Your task to perform on an android device: toggle pop-ups in chrome Image 0: 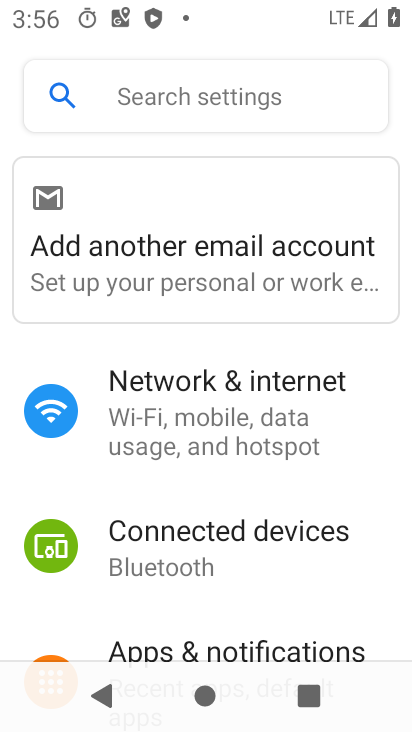
Step 0: press home button
Your task to perform on an android device: toggle pop-ups in chrome Image 1: 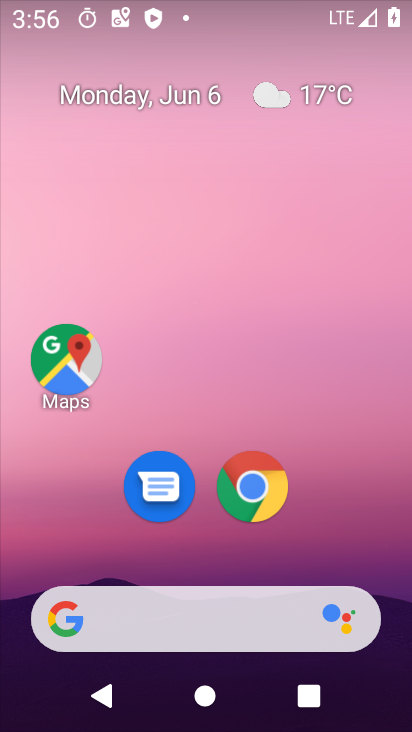
Step 1: click (250, 488)
Your task to perform on an android device: toggle pop-ups in chrome Image 2: 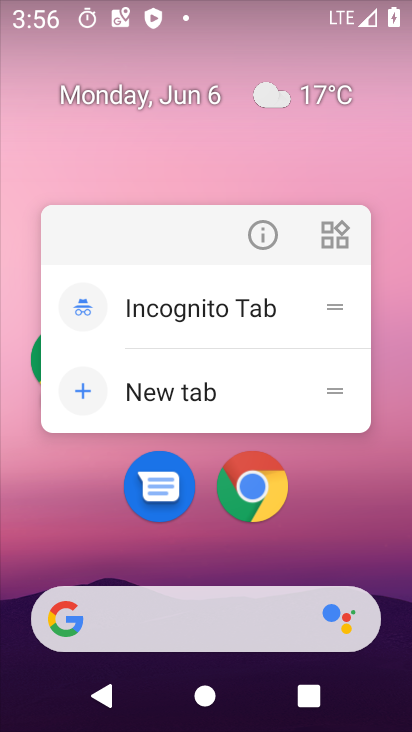
Step 2: click (250, 488)
Your task to perform on an android device: toggle pop-ups in chrome Image 3: 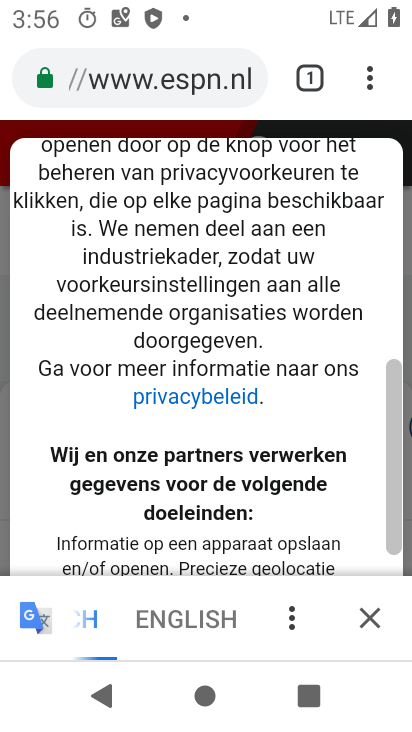
Step 3: drag from (374, 67) to (249, 552)
Your task to perform on an android device: toggle pop-ups in chrome Image 4: 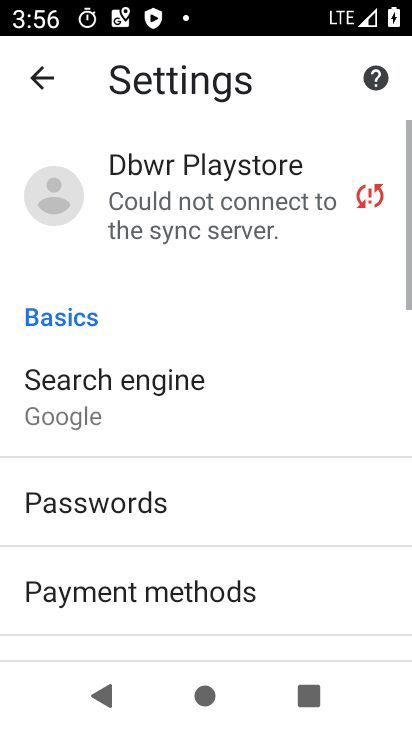
Step 4: drag from (247, 521) to (284, 183)
Your task to perform on an android device: toggle pop-ups in chrome Image 5: 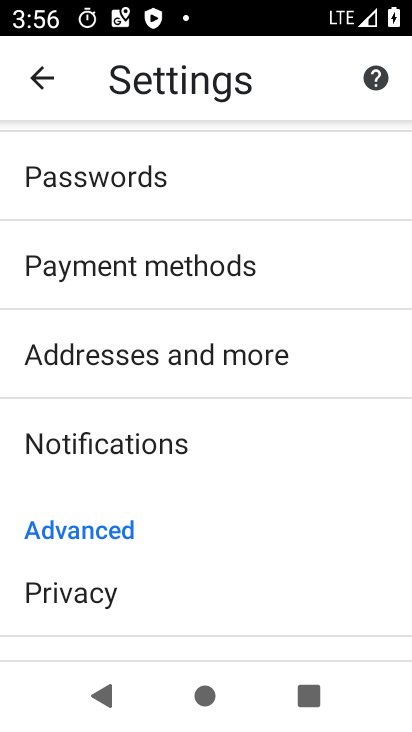
Step 5: drag from (279, 295) to (304, 152)
Your task to perform on an android device: toggle pop-ups in chrome Image 6: 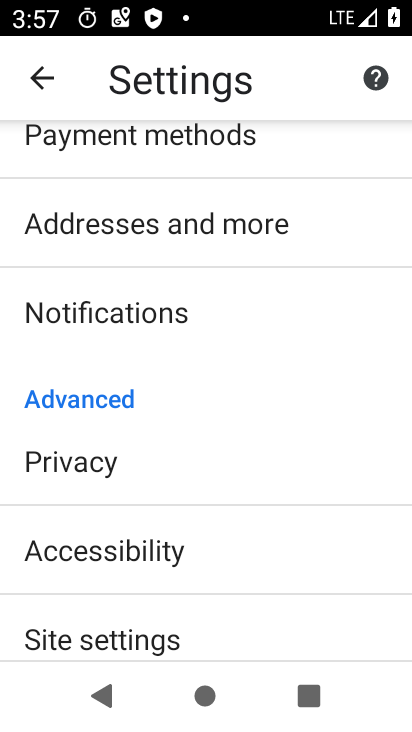
Step 6: drag from (169, 510) to (221, 211)
Your task to perform on an android device: toggle pop-ups in chrome Image 7: 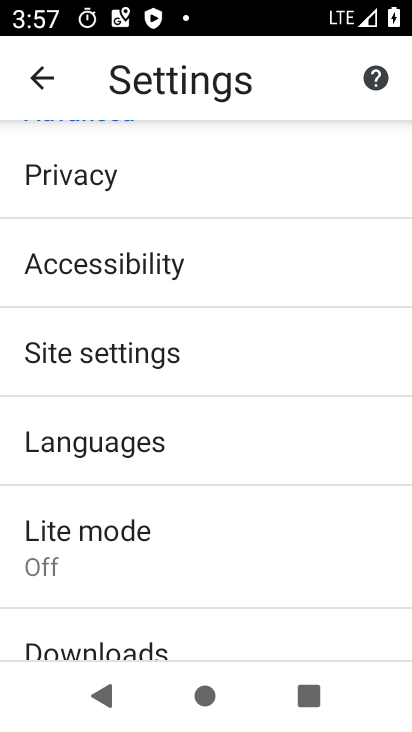
Step 7: drag from (186, 588) to (208, 389)
Your task to perform on an android device: toggle pop-ups in chrome Image 8: 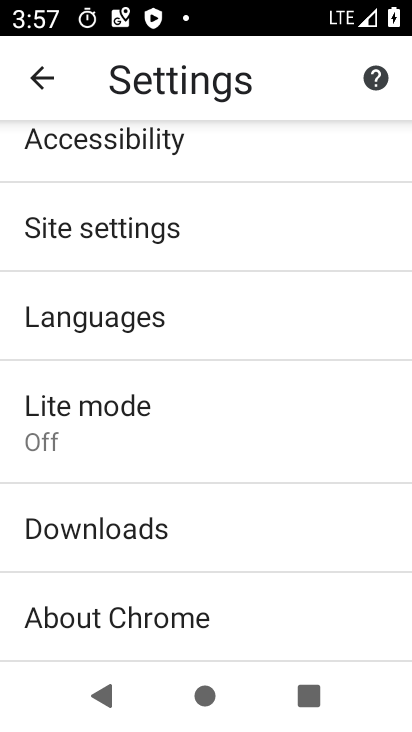
Step 8: click (143, 235)
Your task to perform on an android device: toggle pop-ups in chrome Image 9: 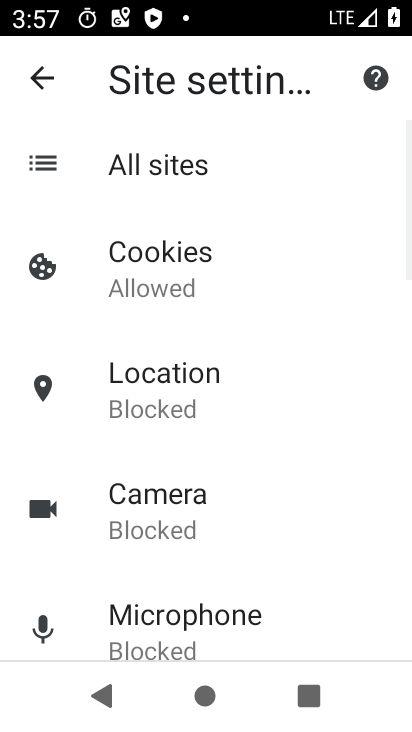
Step 9: drag from (171, 565) to (162, 143)
Your task to perform on an android device: toggle pop-ups in chrome Image 10: 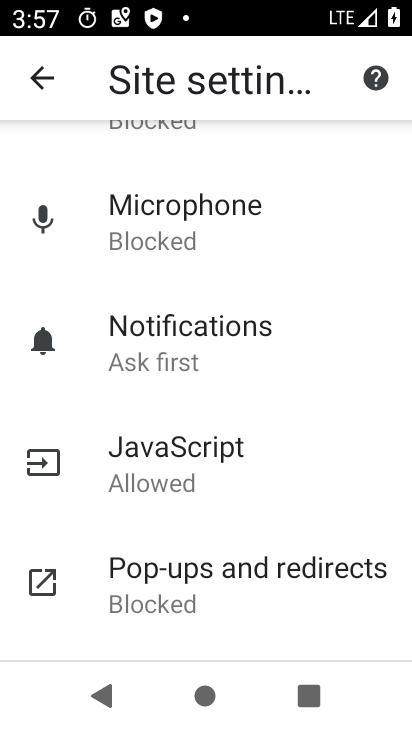
Step 10: click (182, 568)
Your task to perform on an android device: toggle pop-ups in chrome Image 11: 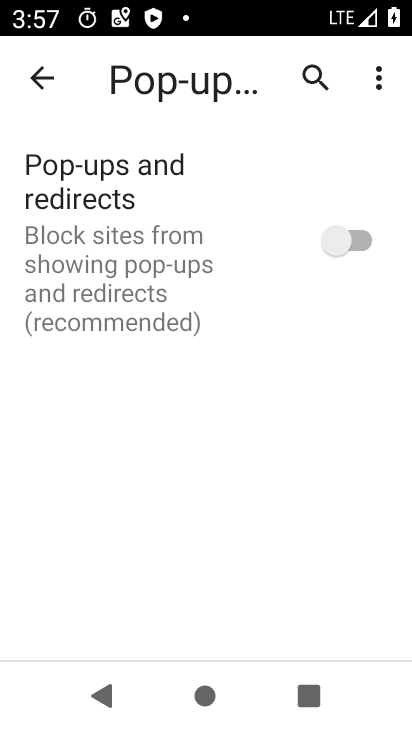
Step 11: click (330, 220)
Your task to perform on an android device: toggle pop-ups in chrome Image 12: 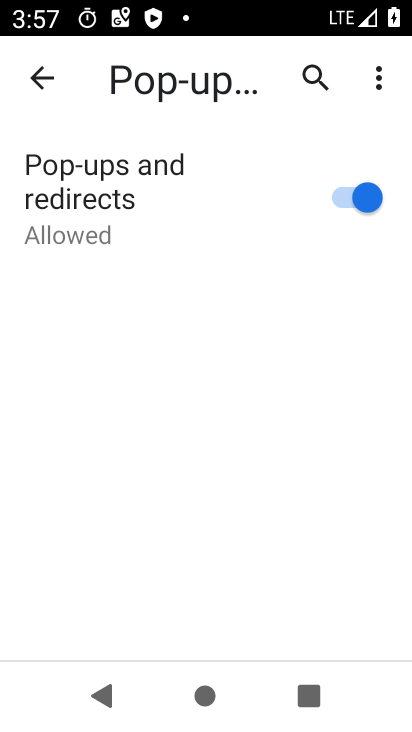
Step 12: task complete